Your task to perform on an android device: open a new tab in the chrome app Image 0: 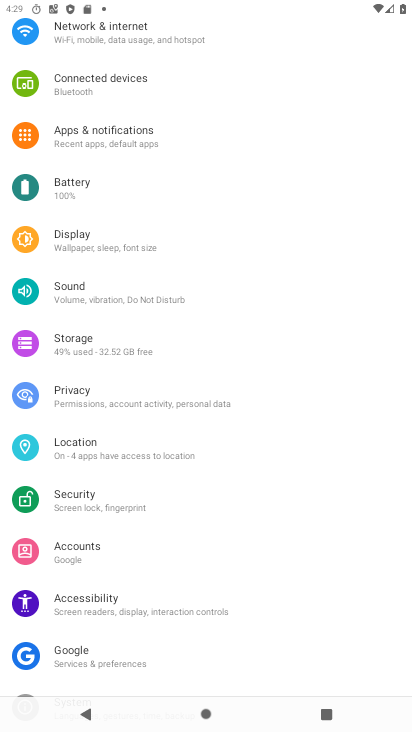
Step 0: press home button
Your task to perform on an android device: open a new tab in the chrome app Image 1: 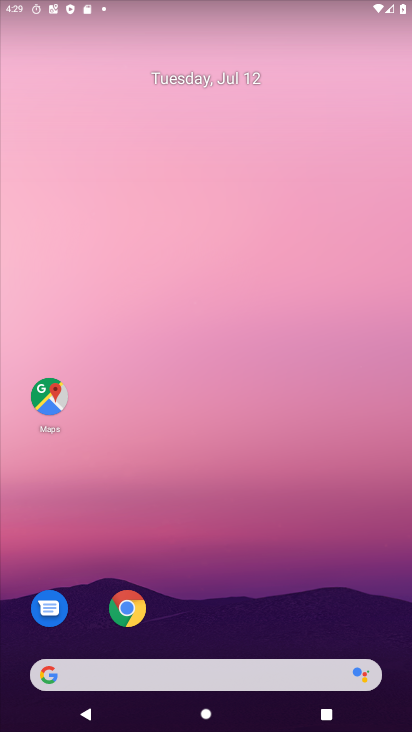
Step 1: click (131, 604)
Your task to perform on an android device: open a new tab in the chrome app Image 2: 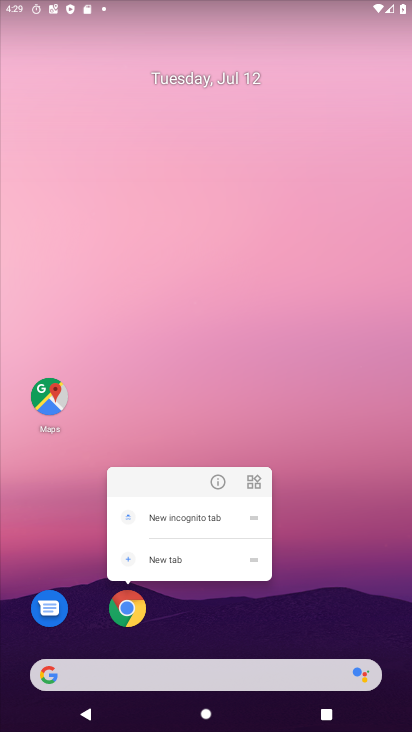
Step 2: click (135, 610)
Your task to perform on an android device: open a new tab in the chrome app Image 3: 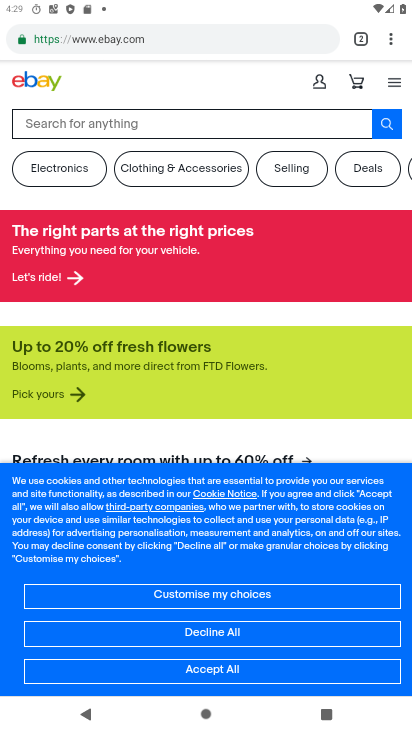
Step 3: click (389, 35)
Your task to perform on an android device: open a new tab in the chrome app Image 4: 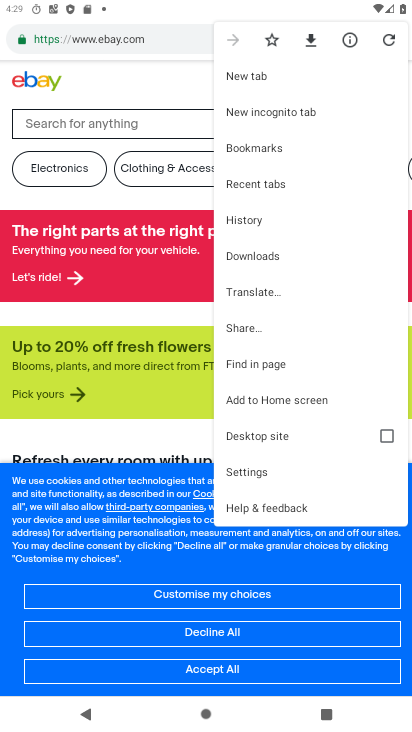
Step 4: click (327, 73)
Your task to perform on an android device: open a new tab in the chrome app Image 5: 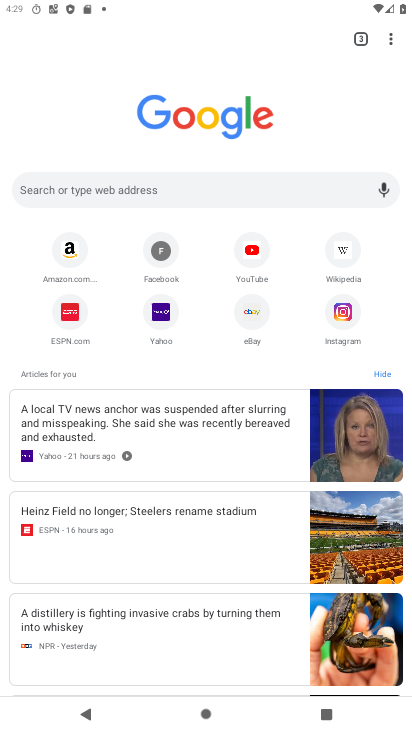
Step 5: task complete